Your task to perform on an android device: Open calendar and show me the fourth week of next month Image 0: 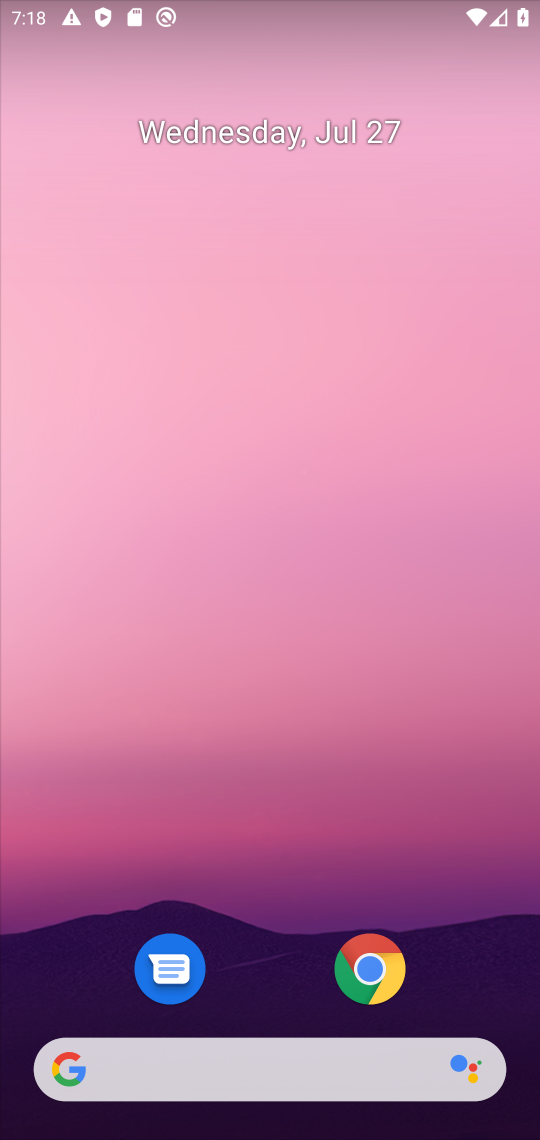
Step 0: drag from (320, 806) to (408, 194)
Your task to perform on an android device: Open calendar and show me the fourth week of next month Image 1: 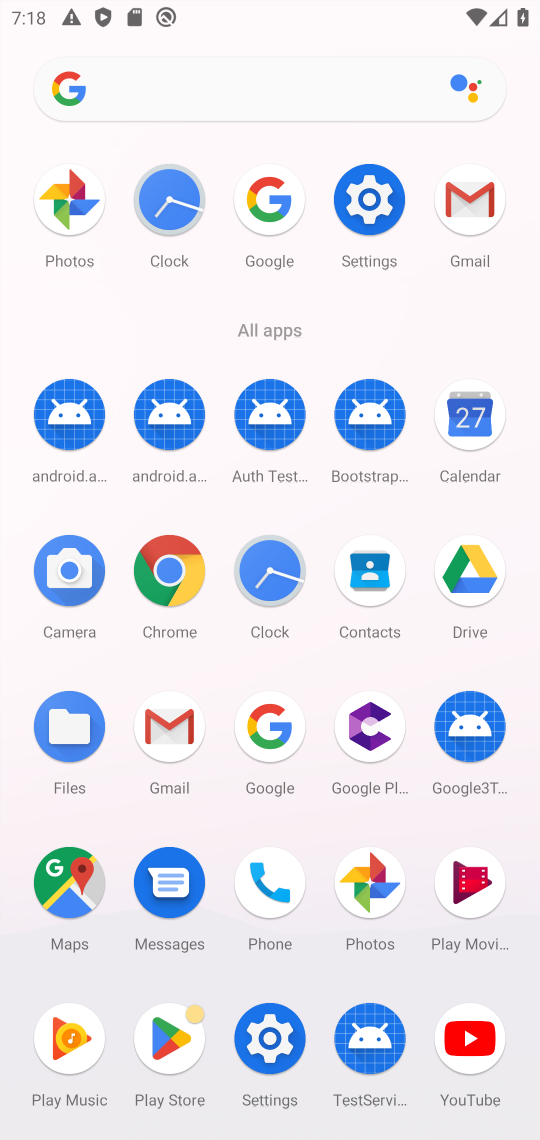
Step 1: click (483, 434)
Your task to perform on an android device: Open calendar and show me the fourth week of next month Image 2: 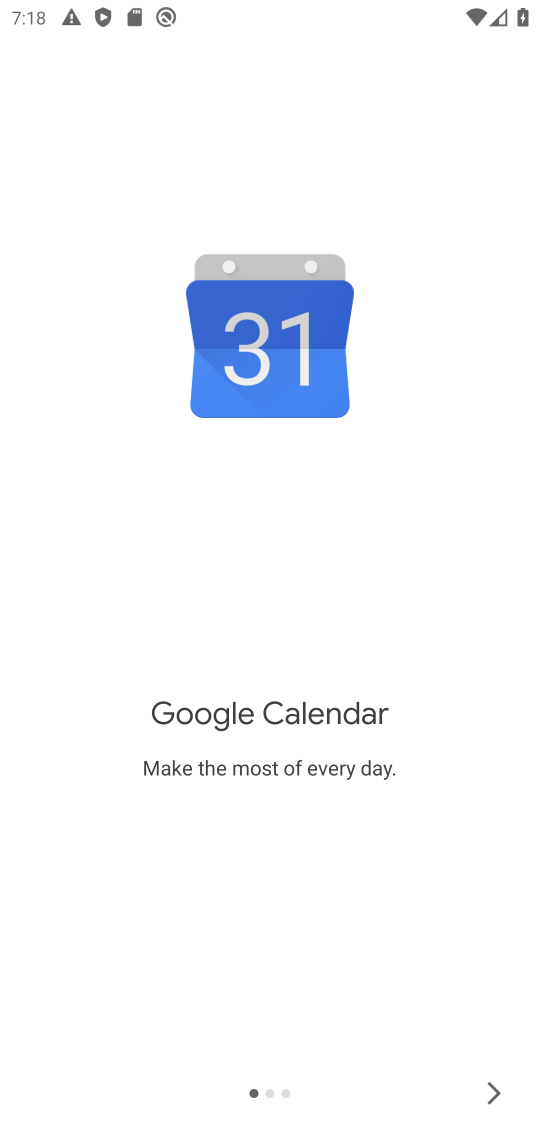
Step 2: click (523, 1095)
Your task to perform on an android device: Open calendar and show me the fourth week of next month Image 3: 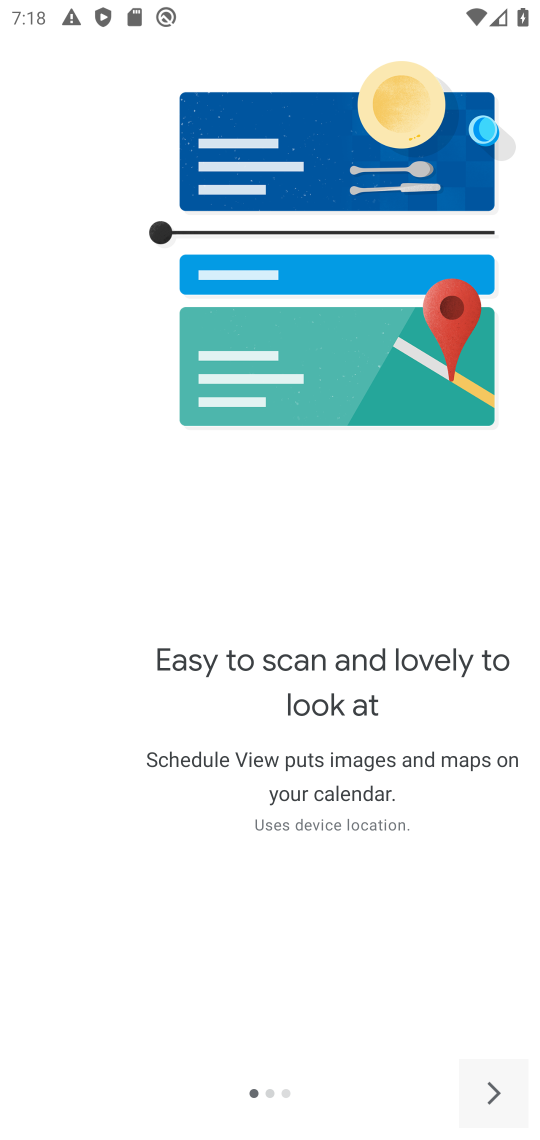
Step 3: click (522, 1094)
Your task to perform on an android device: Open calendar and show me the fourth week of next month Image 4: 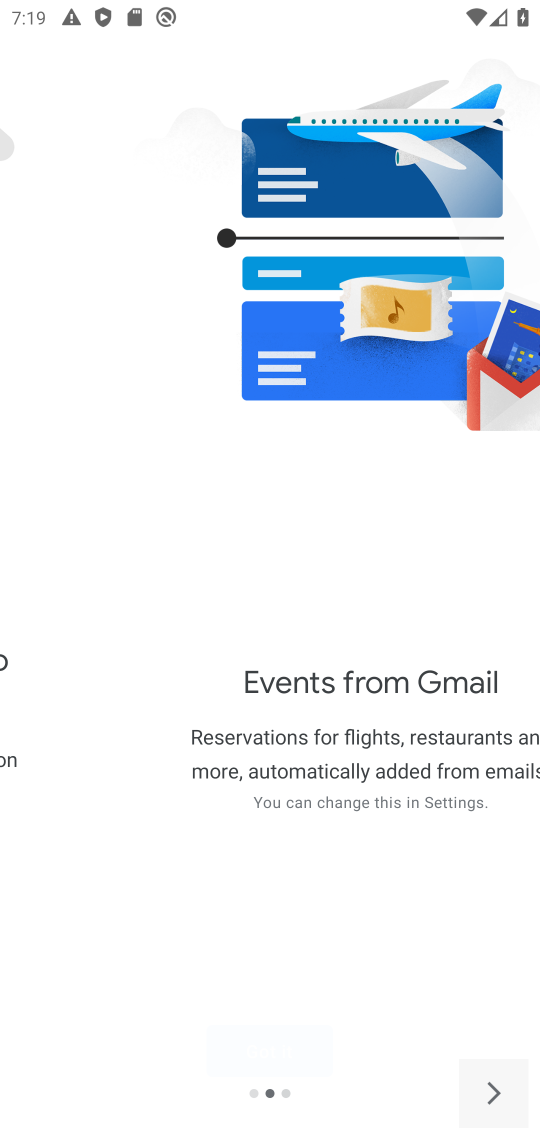
Step 4: click (522, 1094)
Your task to perform on an android device: Open calendar and show me the fourth week of next month Image 5: 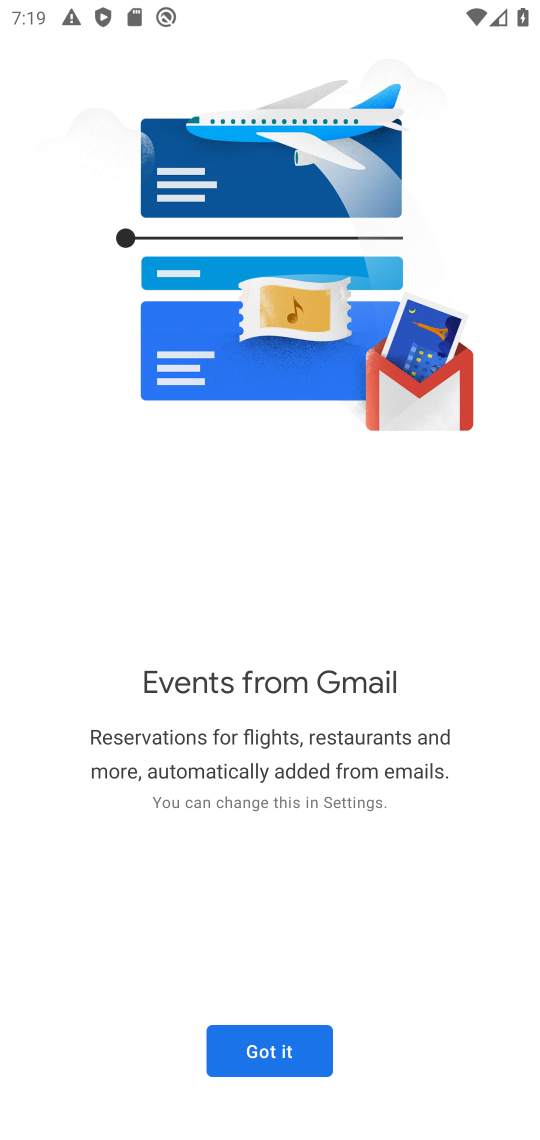
Step 5: click (301, 1060)
Your task to perform on an android device: Open calendar and show me the fourth week of next month Image 6: 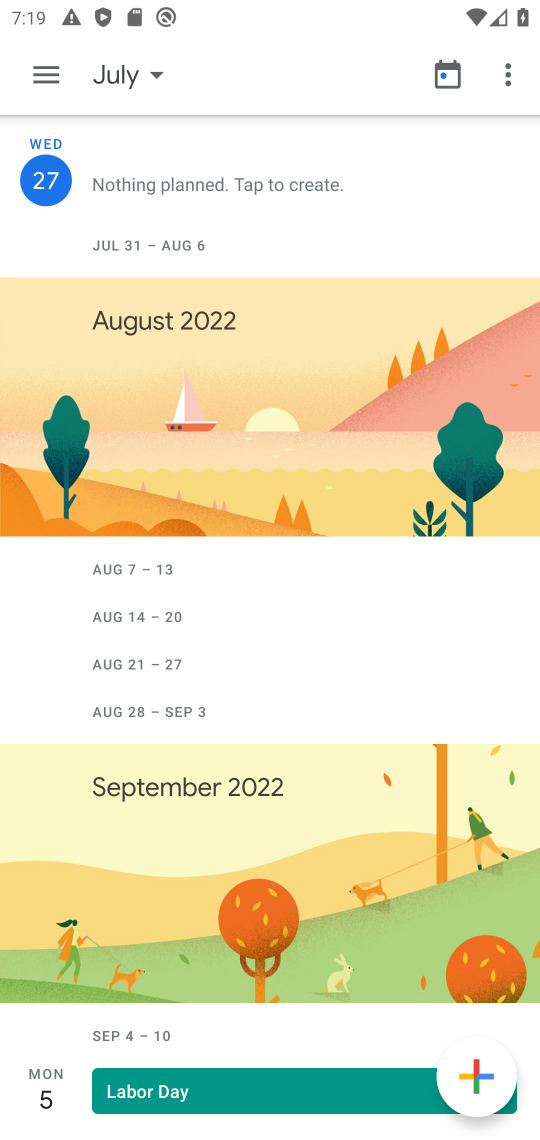
Step 6: click (147, 82)
Your task to perform on an android device: Open calendar and show me the fourth week of next month Image 7: 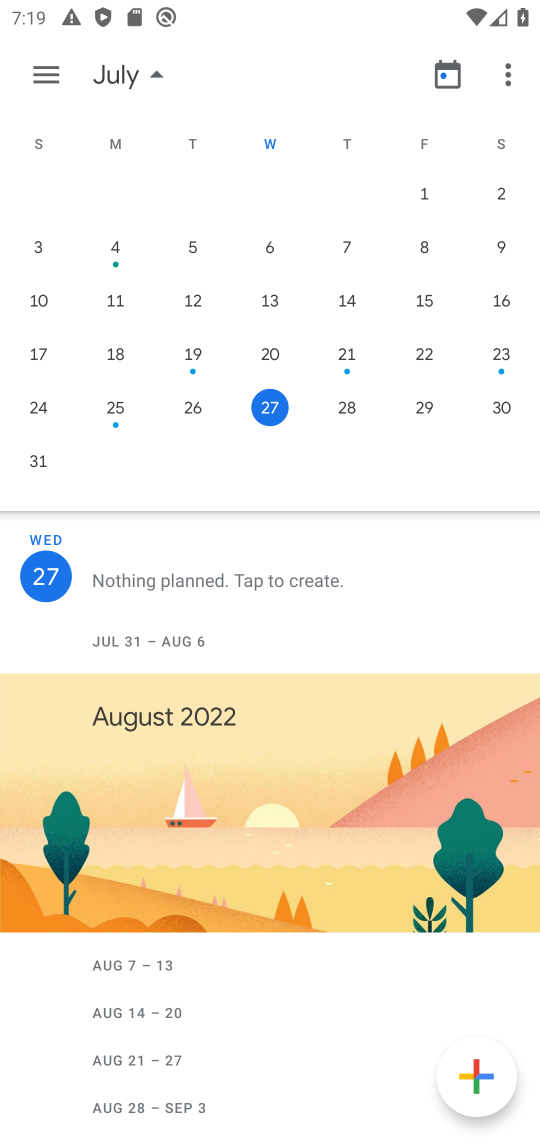
Step 7: drag from (400, 363) to (0, 347)
Your task to perform on an android device: Open calendar and show me the fourth week of next month Image 8: 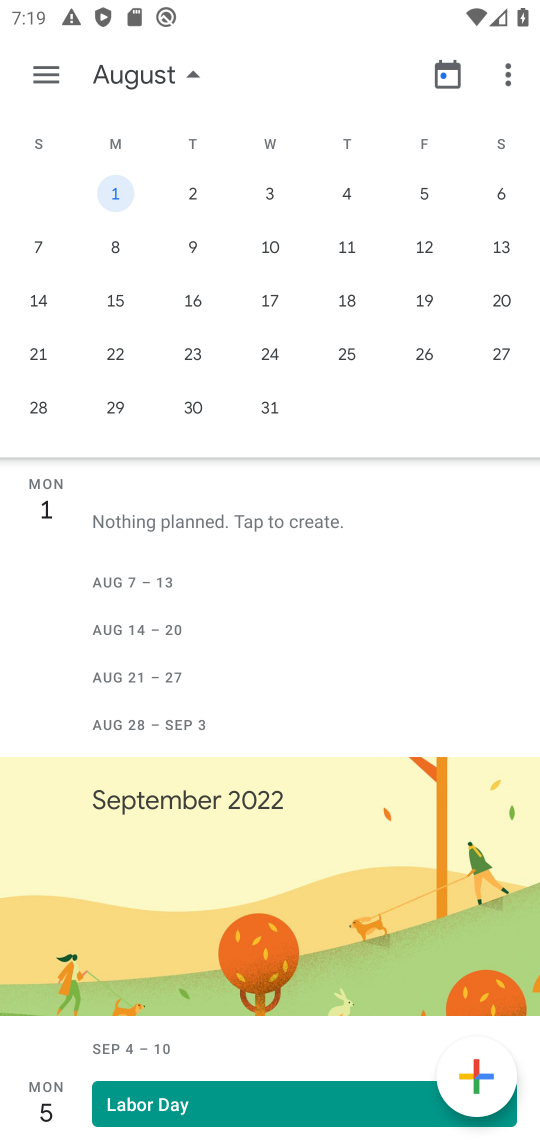
Step 8: click (26, 345)
Your task to perform on an android device: Open calendar and show me the fourth week of next month Image 9: 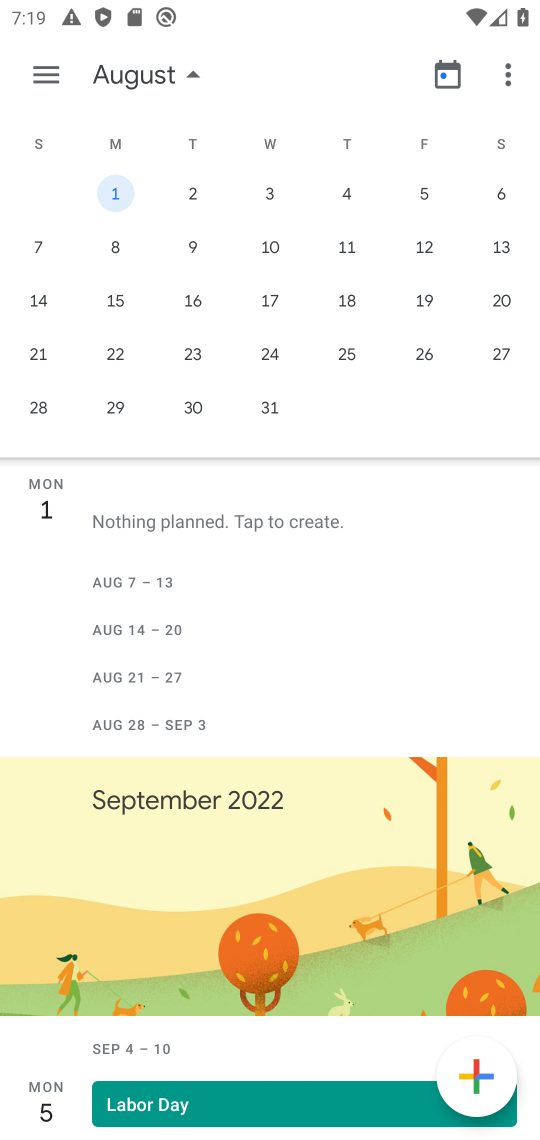
Step 9: click (38, 356)
Your task to perform on an android device: Open calendar and show me the fourth week of next month Image 10: 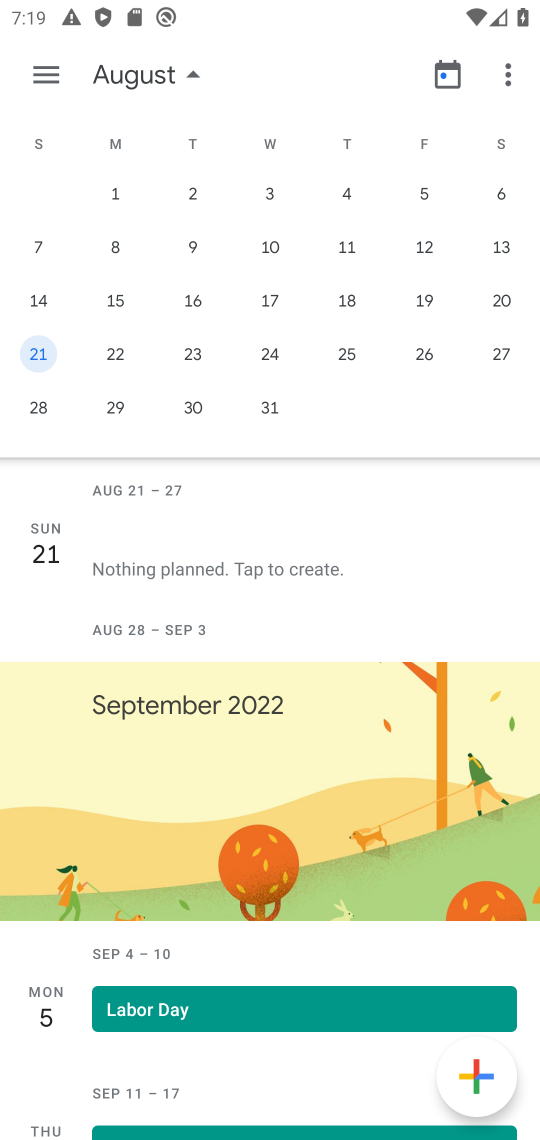
Step 10: click (182, 82)
Your task to perform on an android device: Open calendar and show me the fourth week of next month Image 11: 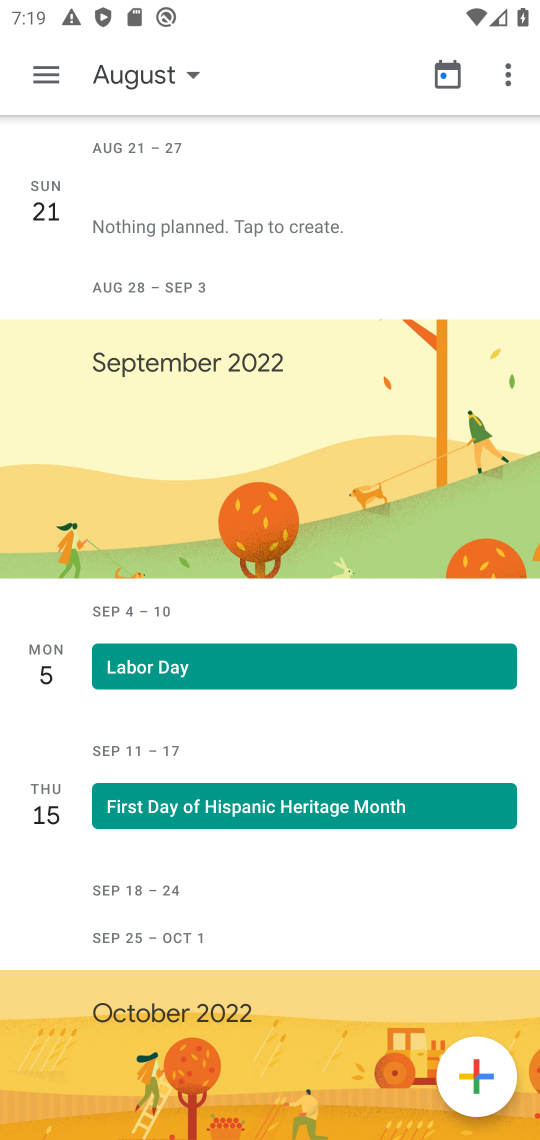
Step 11: task complete